Your task to perform on an android device: Go to wifi settings Image 0: 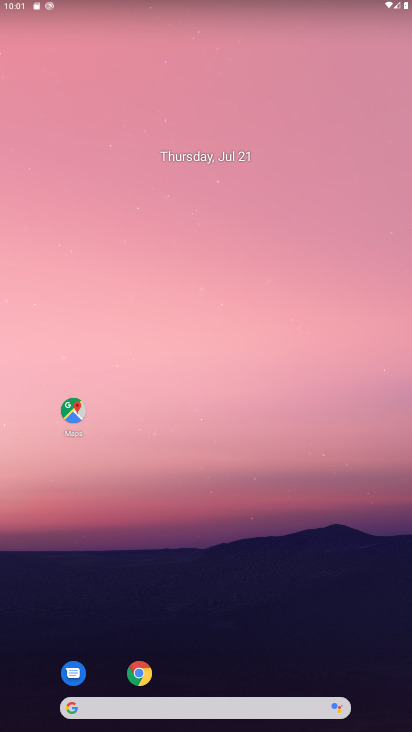
Step 0: drag from (189, 653) to (214, 182)
Your task to perform on an android device: Go to wifi settings Image 1: 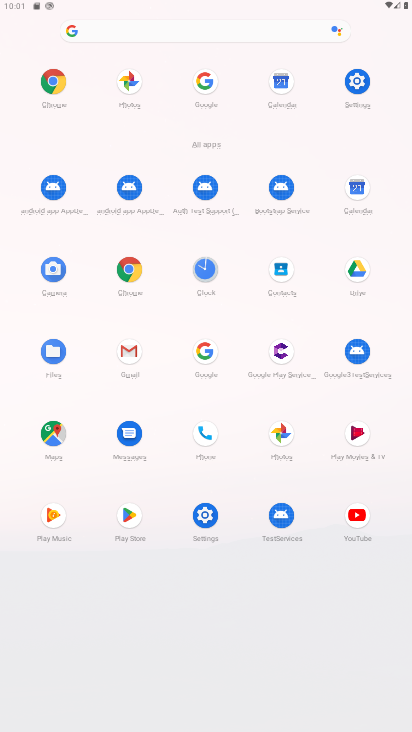
Step 1: click (358, 80)
Your task to perform on an android device: Go to wifi settings Image 2: 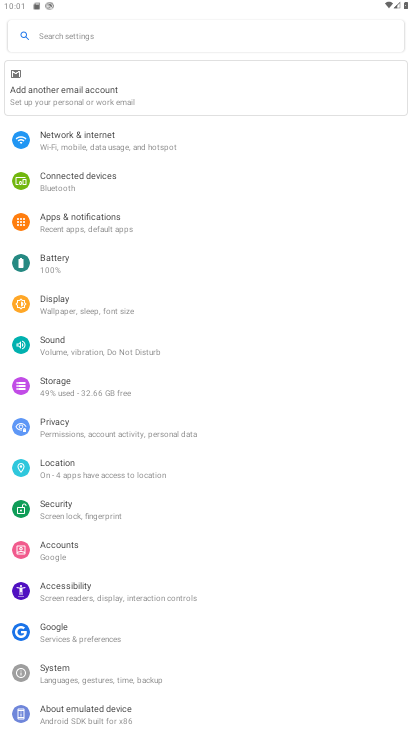
Step 2: click (133, 132)
Your task to perform on an android device: Go to wifi settings Image 3: 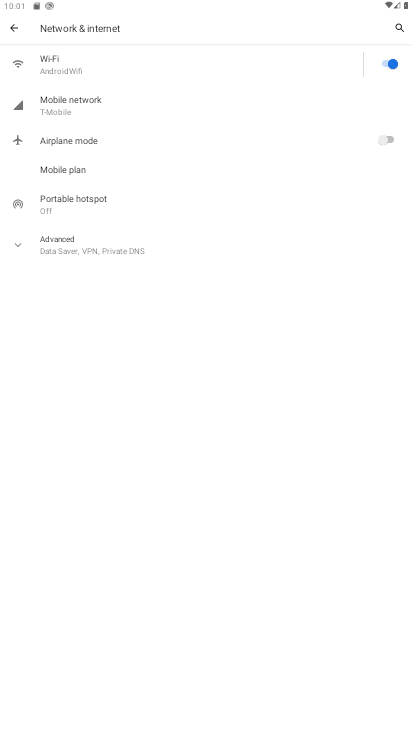
Step 3: click (180, 62)
Your task to perform on an android device: Go to wifi settings Image 4: 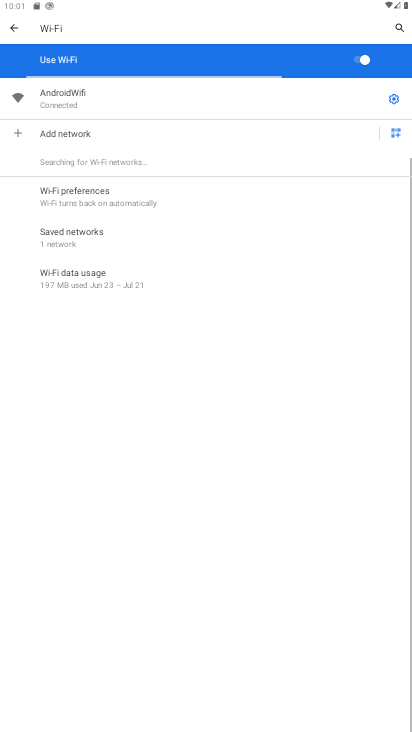
Step 4: click (112, 100)
Your task to perform on an android device: Go to wifi settings Image 5: 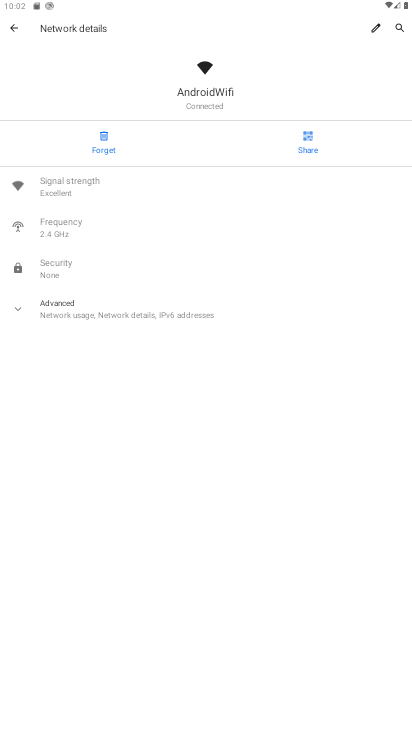
Step 5: task complete